Your task to perform on an android device: Open Google Maps and go to "Timeline" Image 0: 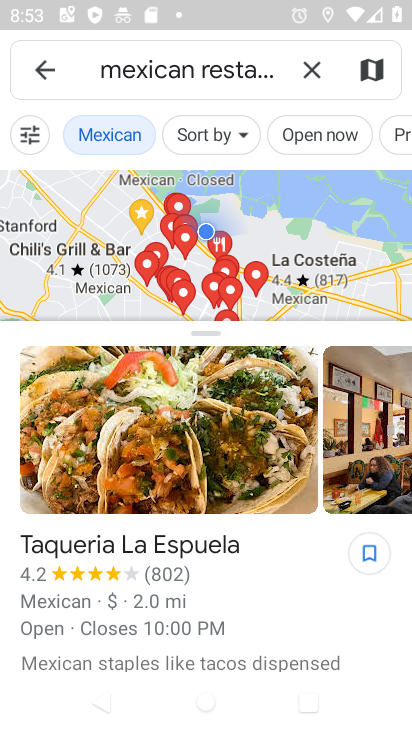
Step 0: click (310, 72)
Your task to perform on an android device: Open Google Maps and go to "Timeline" Image 1: 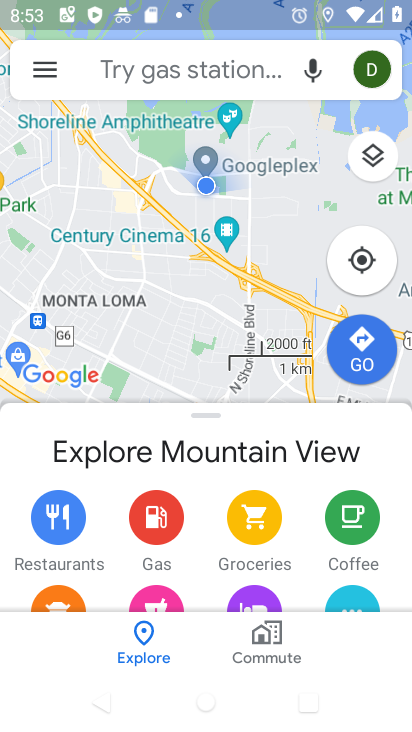
Step 1: click (42, 64)
Your task to perform on an android device: Open Google Maps and go to "Timeline" Image 2: 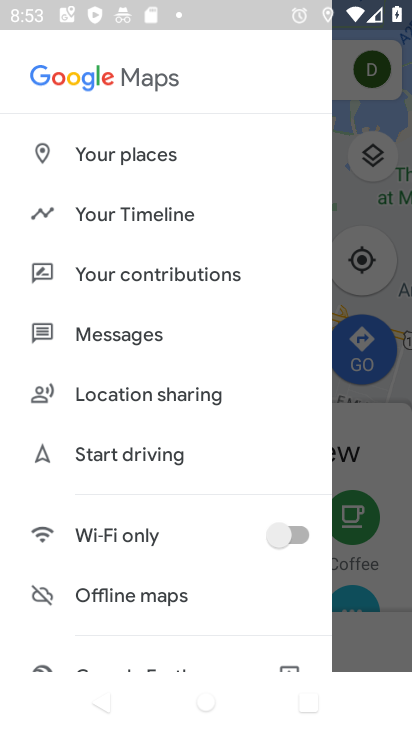
Step 2: click (83, 192)
Your task to perform on an android device: Open Google Maps and go to "Timeline" Image 3: 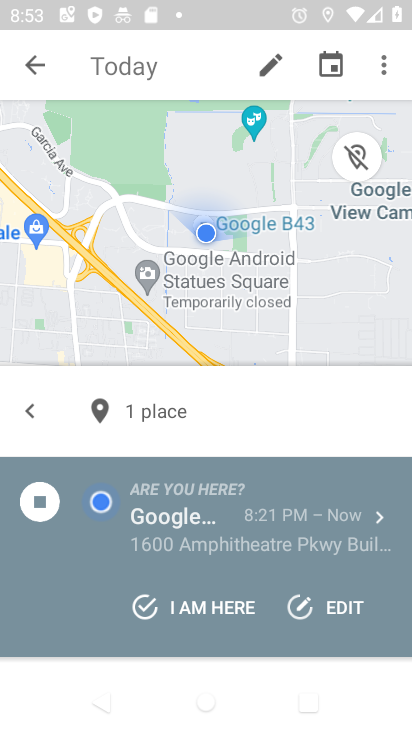
Step 3: task complete